Your task to perform on an android device: Go to calendar. Show me events next week Image 0: 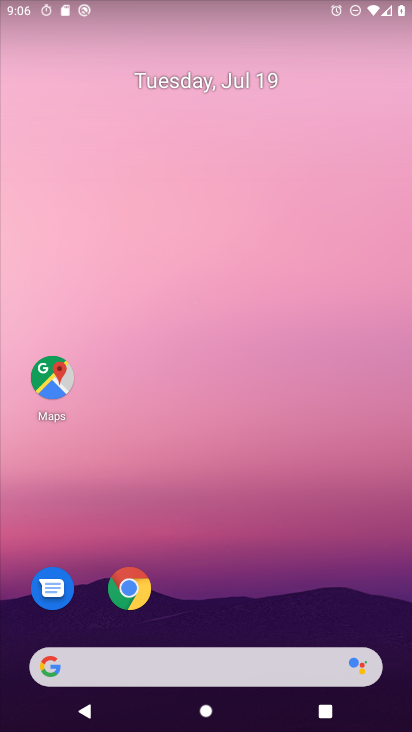
Step 0: drag from (282, 551) to (233, 94)
Your task to perform on an android device: Go to calendar. Show me events next week Image 1: 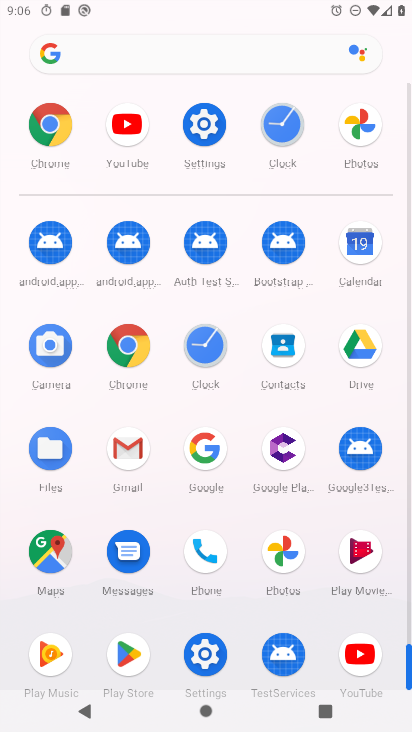
Step 1: click (364, 270)
Your task to perform on an android device: Go to calendar. Show me events next week Image 2: 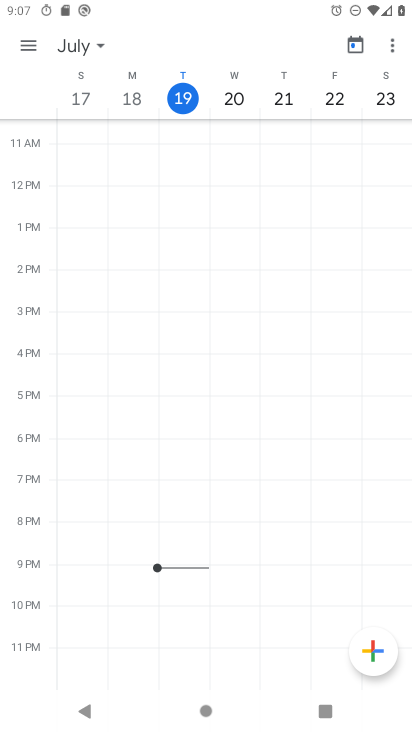
Step 2: click (94, 40)
Your task to perform on an android device: Go to calendar. Show me events next week Image 3: 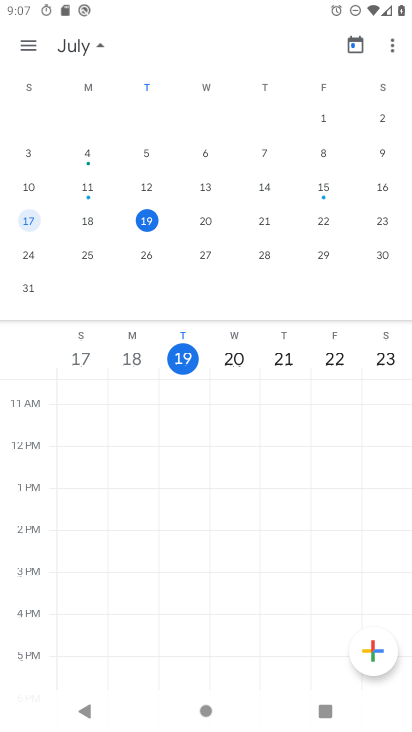
Step 3: click (91, 53)
Your task to perform on an android device: Go to calendar. Show me events next week Image 4: 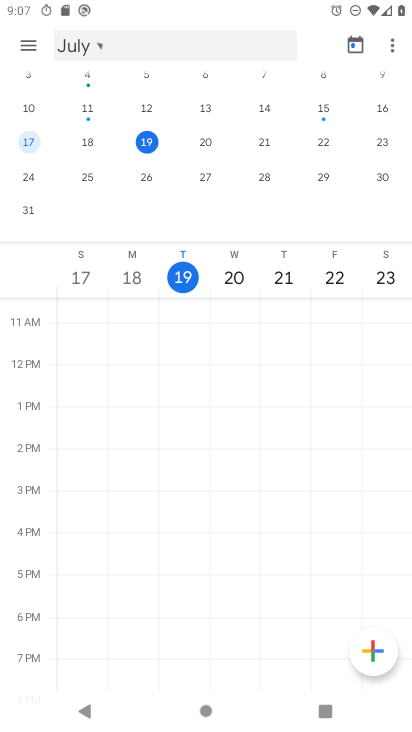
Step 4: drag from (11, 130) to (1, 197)
Your task to perform on an android device: Go to calendar. Show me events next week Image 5: 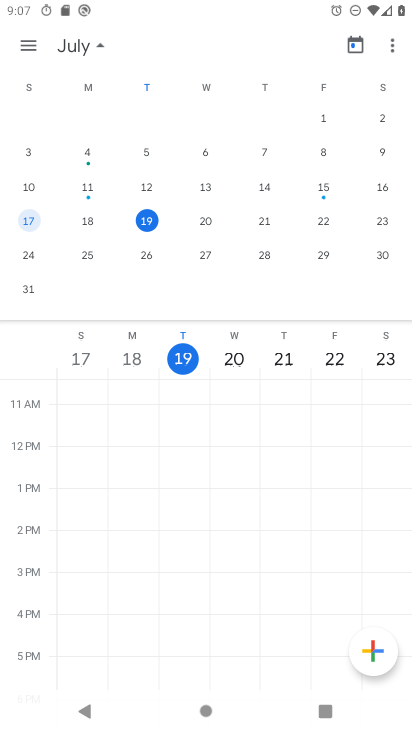
Step 5: click (34, 260)
Your task to perform on an android device: Go to calendar. Show me events next week Image 6: 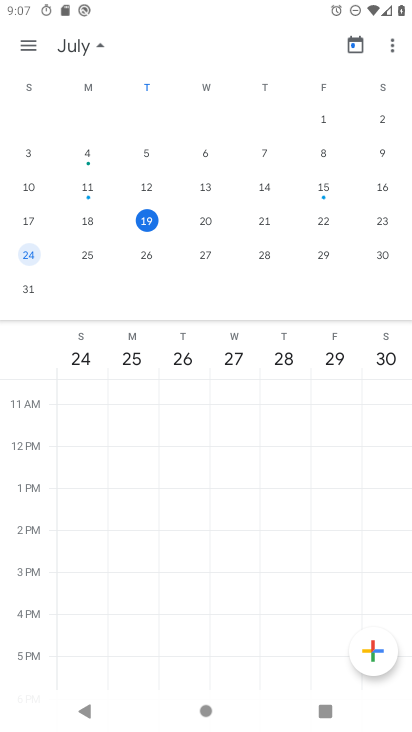
Step 6: click (85, 52)
Your task to perform on an android device: Go to calendar. Show me events next week Image 7: 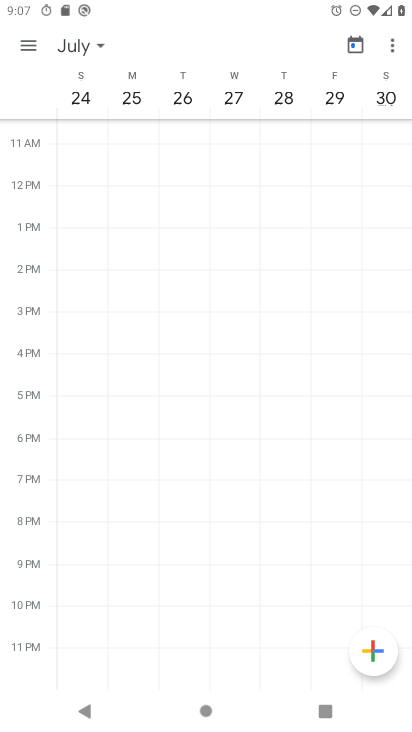
Step 7: task complete